Your task to perform on an android device: What's the weather? Image 0: 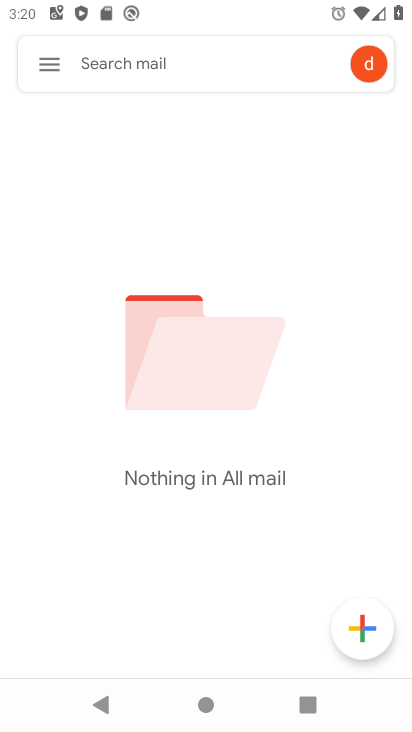
Step 0: press home button
Your task to perform on an android device: What's the weather? Image 1: 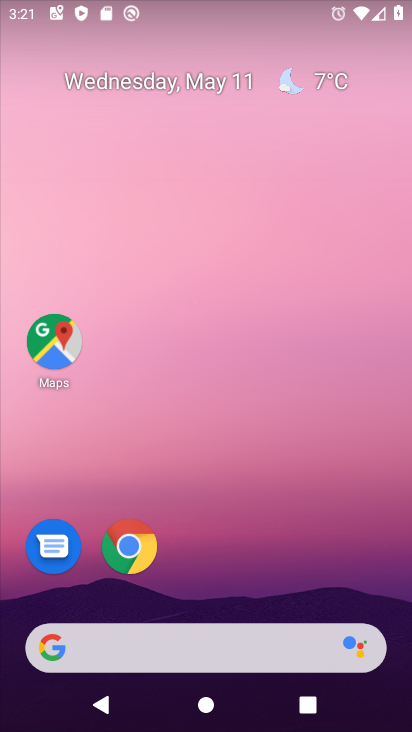
Step 1: drag from (198, 654) to (247, 127)
Your task to perform on an android device: What's the weather? Image 2: 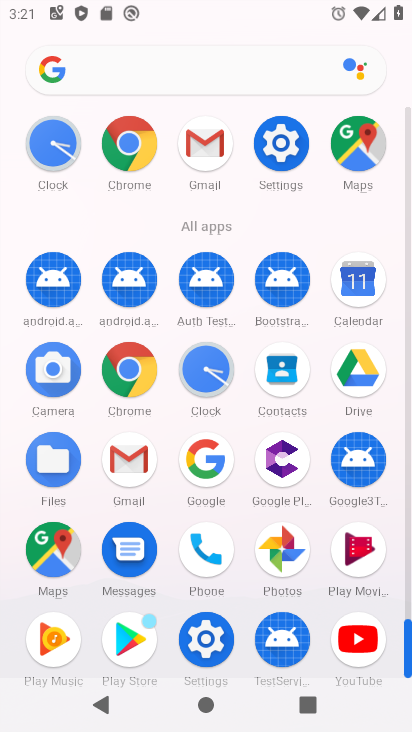
Step 2: click (133, 360)
Your task to perform on an android device: What's the weather? Image 3: 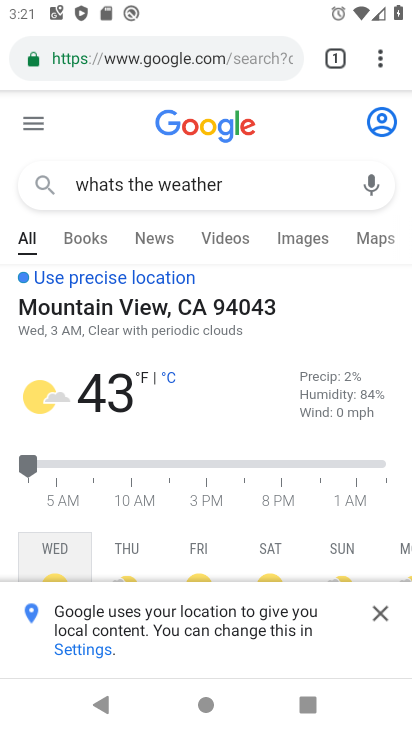
Step 3: task complete